Your task to perform on an android device: Go to ESPN.com Image 0: 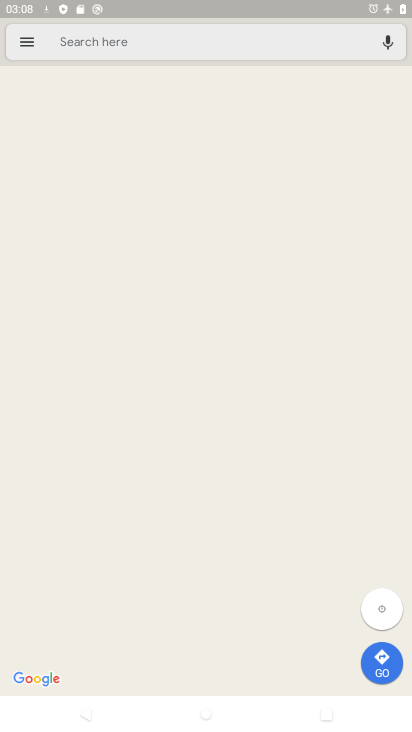
Step 0: press home button
Your task to perform on an android device: Go to ESPN.com Image 1: 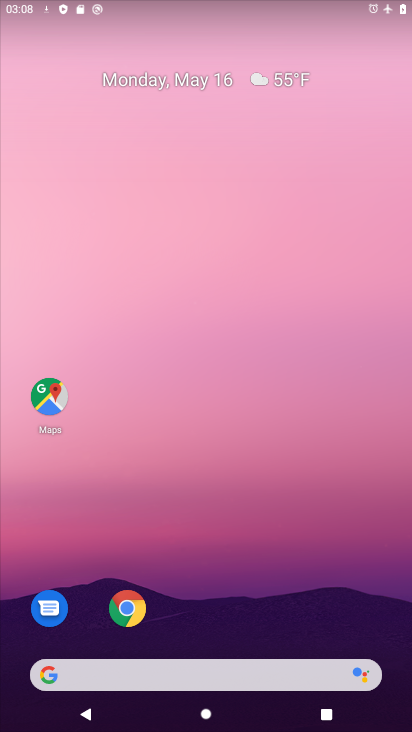
Step 1: click (124, 603)
Your task to perform on an android device: Go to ESPN.com Image 2: 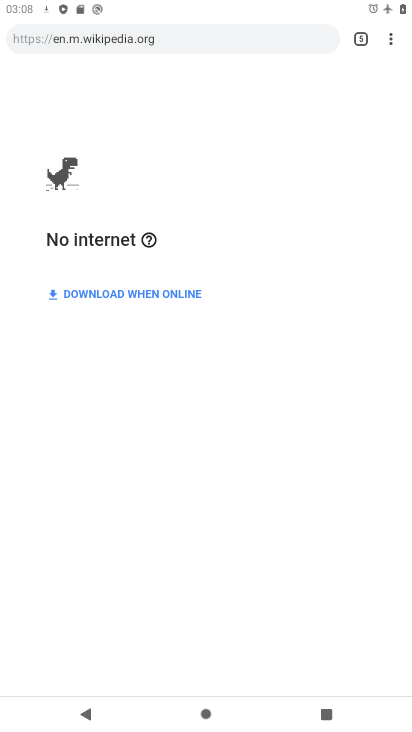
Step 2: click (357, 43)
Your task to perform on an android device: Go to ESPN.com Image 3: 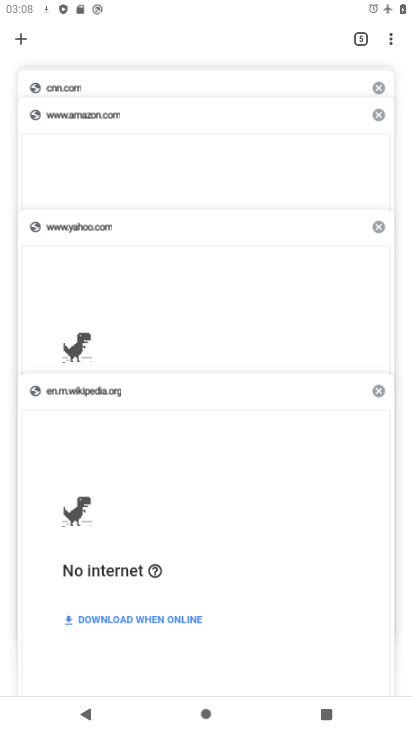
Step 3: click (15, 34)
Your task to perform on an android device: Go to ESPN.com Image 4: 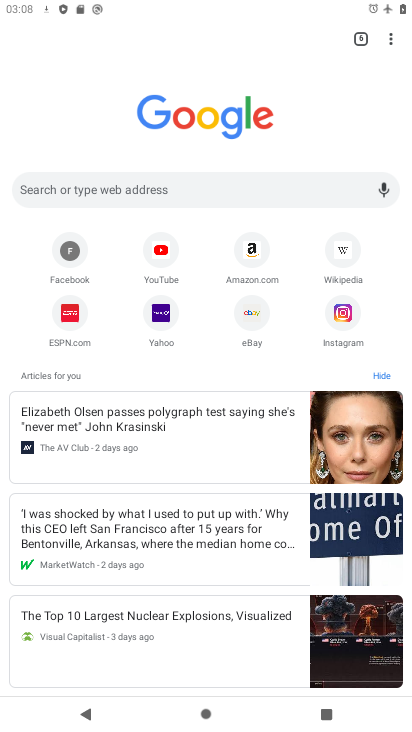
Step 4: click (76, 321)
Your task to perform on an android device: Go to ESPN.com Image 5: 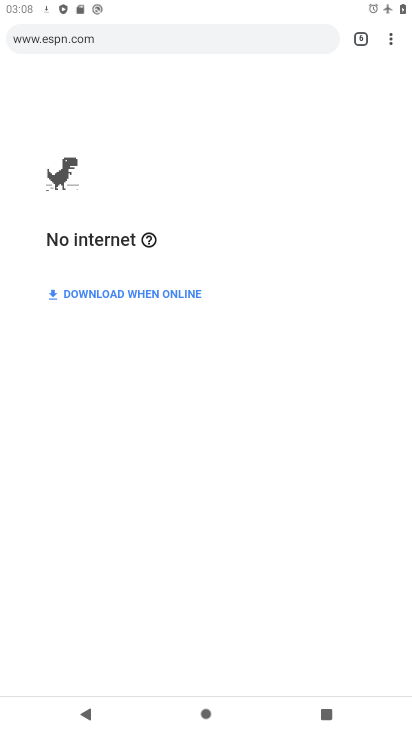
Step 5: task complete